Your task to perform on an android device: toggle notification dots Image 0: 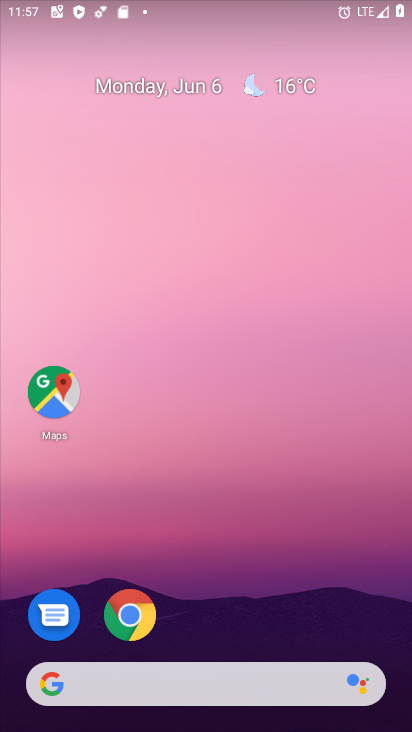
Step 0: press home button
Your task to perform on an android device: toggle notification dots Image 1: 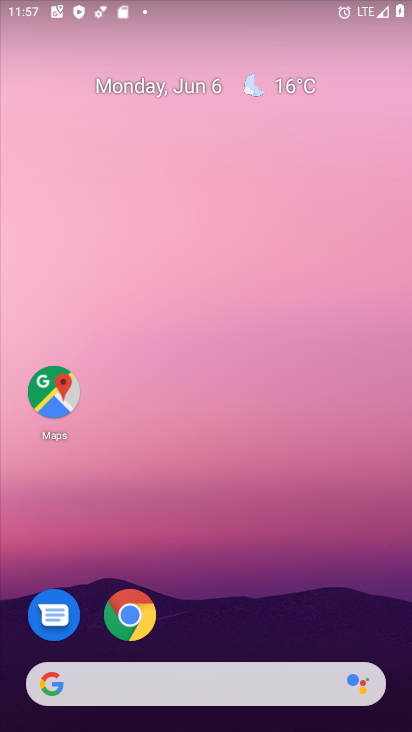
Step 1: drag from (206, 636) to (220, 436)
Your task to perform on an android device: toggle notification dots Image 2: 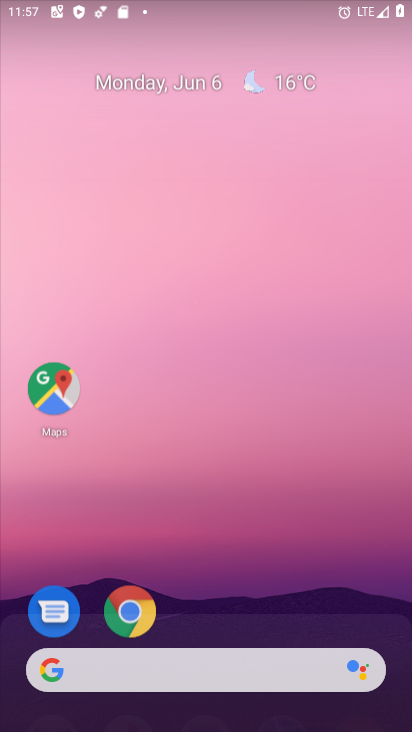
Step 2: drag from (222, 212) to (222, 15)
Your task to perform on an android device: toggle notification dots Image 3: 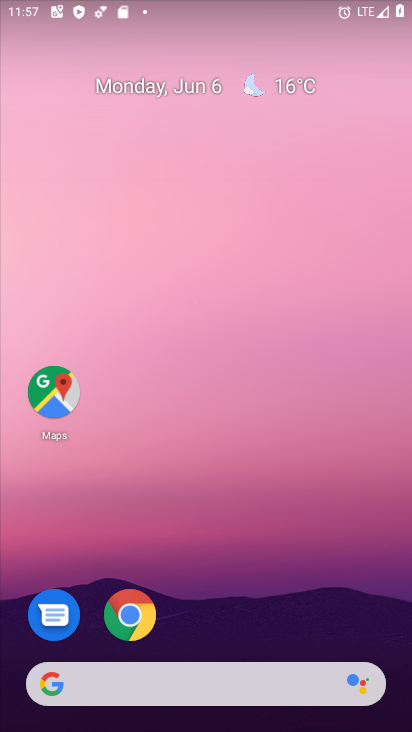
Step 3: drag from (209, 639) to (203, 19)
Your task to perform on an android device: toggle notification dots Image 4: 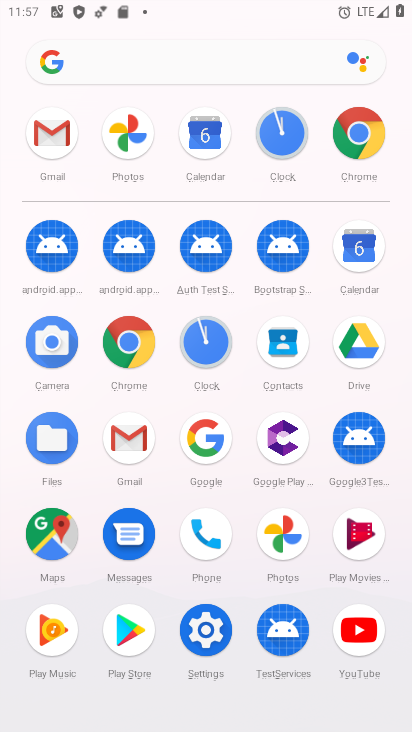
Step 4: click (204, 618)
Your task to perform on an android device: toggle notification dots Image 5: 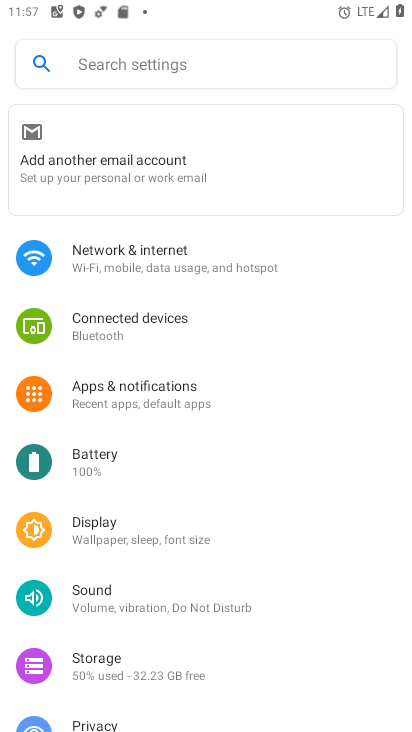
Step 5: click (218, 388)
Your task to perform on an android device: toggle notification dots Image 6: 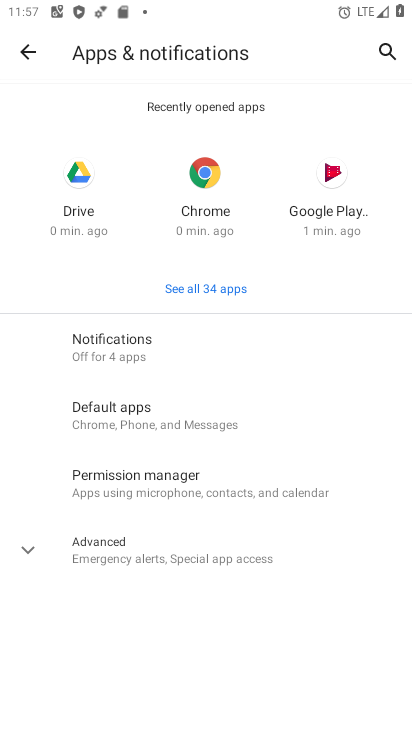
Step 6: click (165, 342)
Your task to perform on an android device: toggle notification dots Image 7: 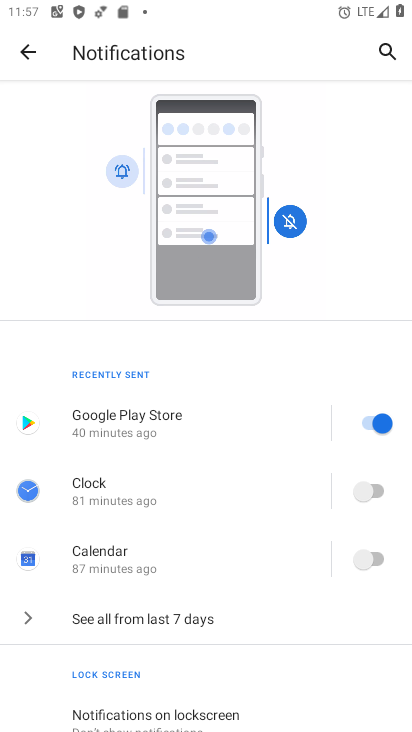
Step 7: drag from (218, 659) to (225, 116)
Your task to perform on an android device: toggle notification dots Image 8: 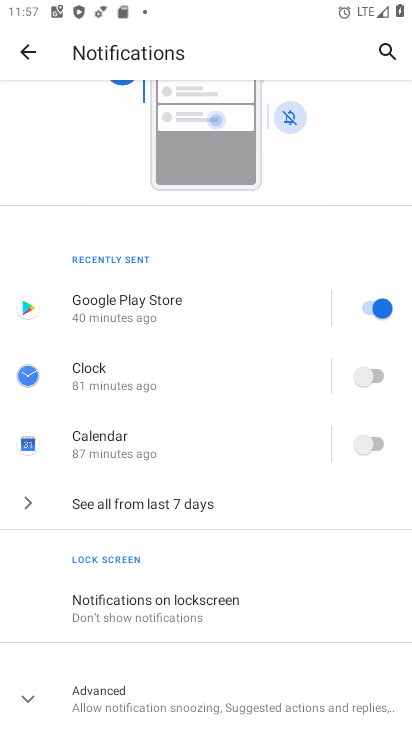
Step 8: click (27, 696)
Your task to perform on an android device: toggle notification dots Image 9: 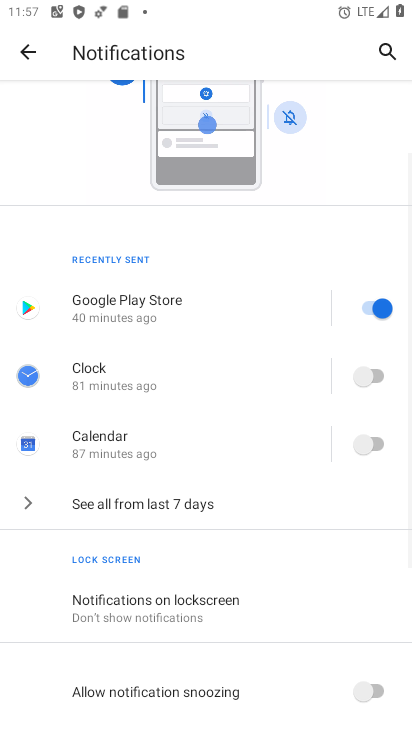
Step 9: drag from (173, 706) to (229, 171)
Your task to perform on an android device: toggle notification dots Image 10: 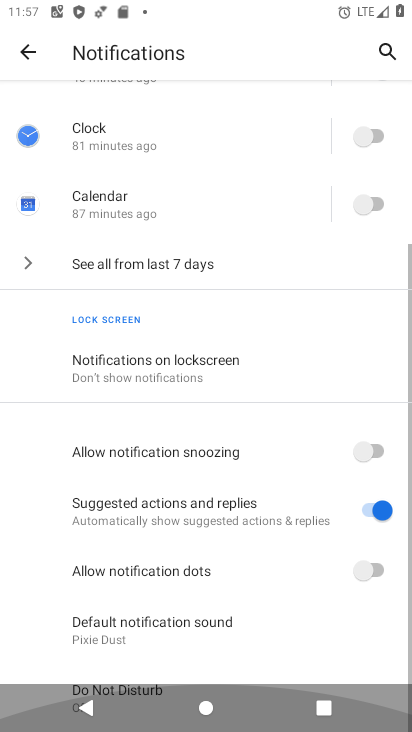
Step 10: click (229, 135)
Your task to perform on an android device: toggle notification dots Image 11: 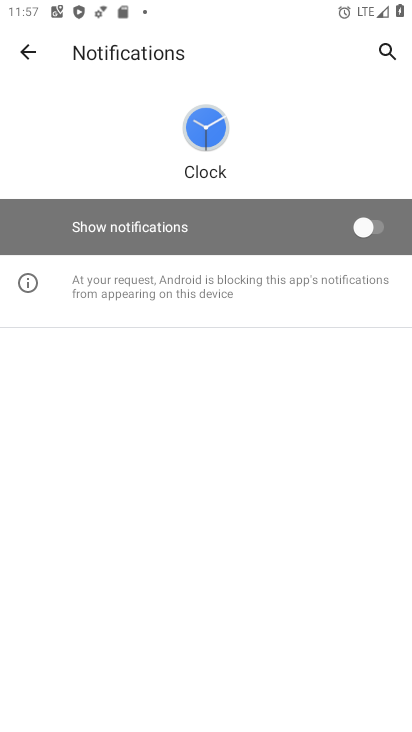
Step 11: click (26, 45)
Your task to perform on an android device: toggle notification dots Image 12: 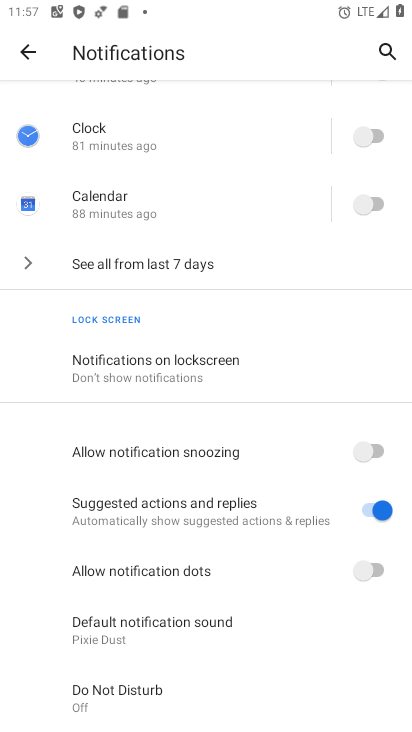
Step 12: click (375, 564)
Your task to perform on an android device: toggle notification dots Image 13: 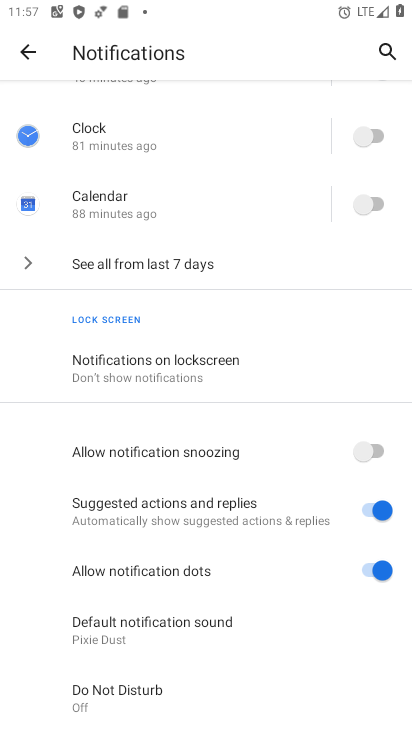
Step 13: task complete